Your task to perform on an android device: snooze an email in the gmail app Image 0: 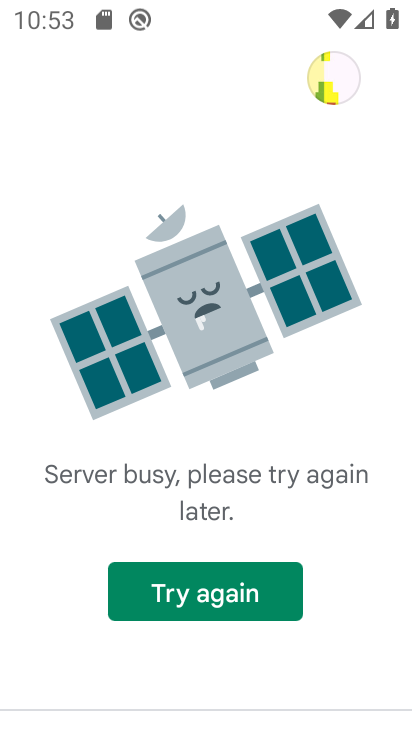
Step 0: press home button
Your task to perform on an android device: snooze an email in the gmail app Image 1: 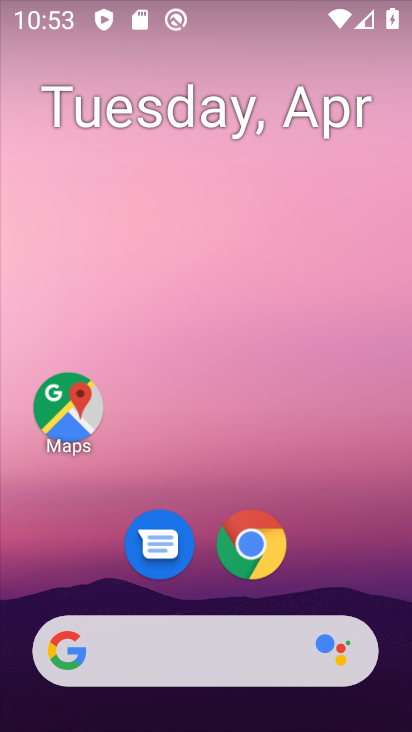
Step 1: press home button
Your task to perform on an android device: snooze an email in the gmail app Image 2: 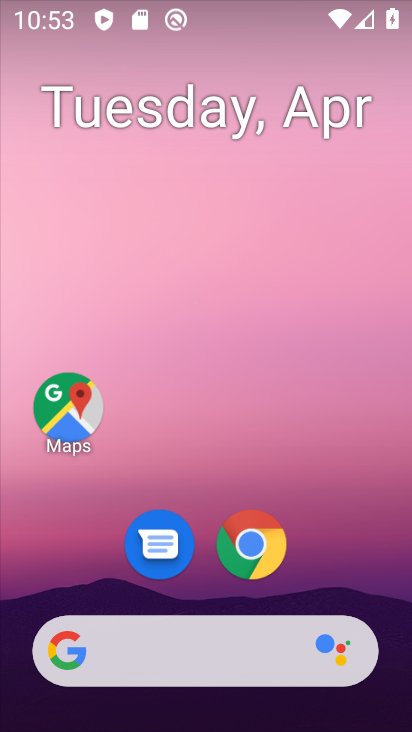
Step 2: drag from (197, 579) to (202, 16)
Your task to perform on an android device: snooze an email in the gmail app Image 3: 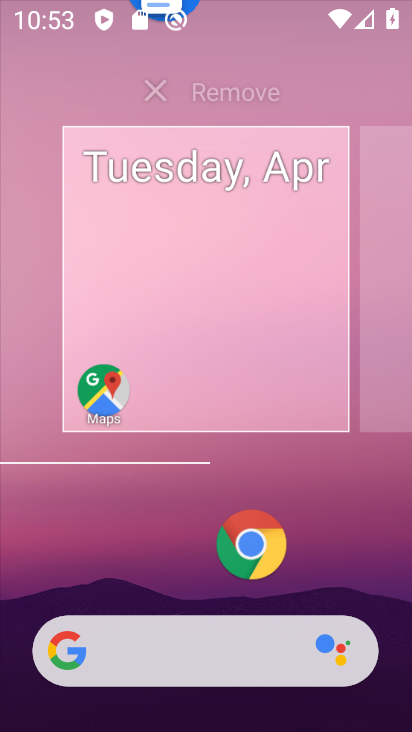
Step 3: click (339, 529)
Your task to perform on an android device: snooze an email in the gmail app Image 4: 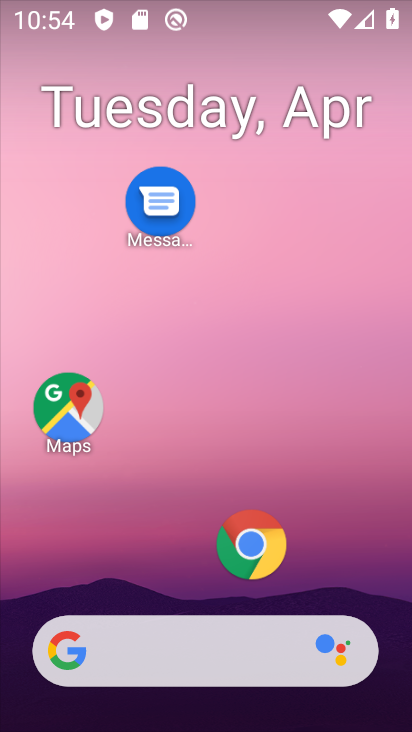
Step 4: click (353, 525)
Your task to perform on an android device: snooze an email in the gmail app Image 5: 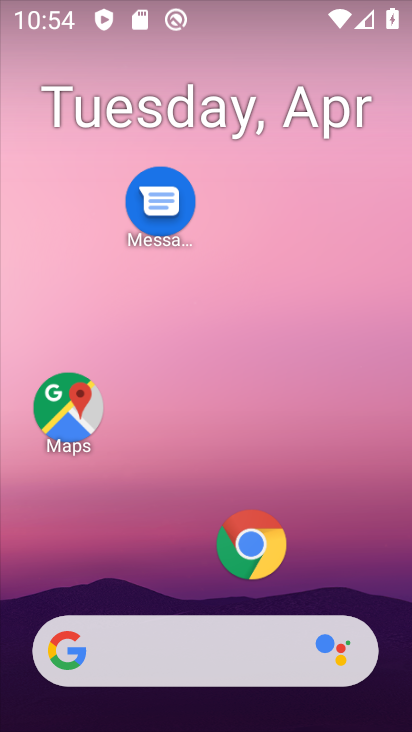
Step 5: drag from (162, 576) to (315, 52)
Your task to perform on an android device: snooze an email in the gmail app Image 6: 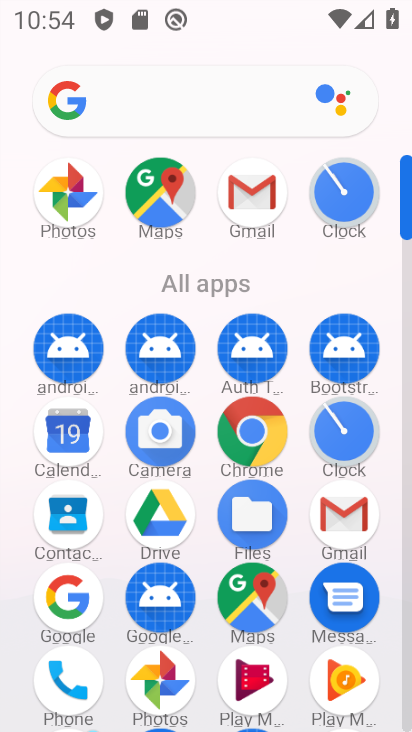
Step 6: drag from (161, 571) to (303, 5)
Your task to perform on an android device: snooze an email in the gmail app Image 7: 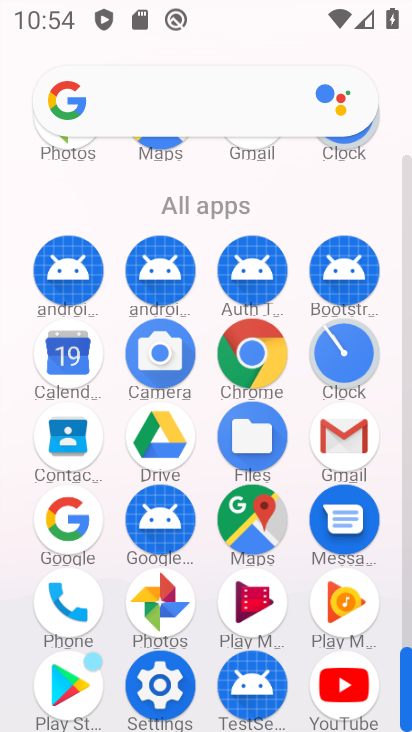
Step 7: click (353, 433)
Your task to perform on an android device: snooze an email in the gmail app Image 8: 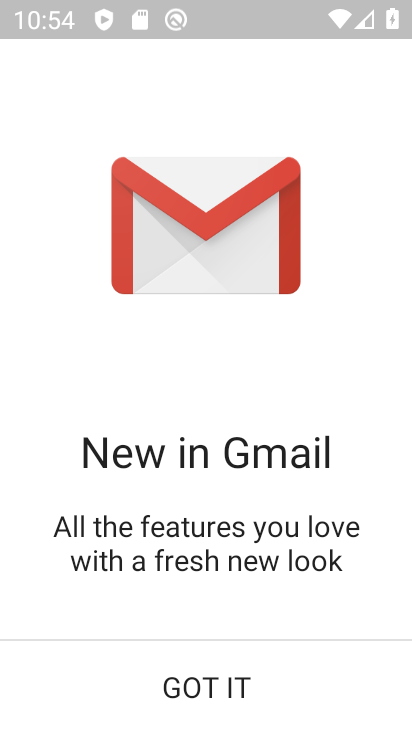
Step 8: click (215, 675)
Your task to perform on an android device: snooze an email in the gmail app Image 9: 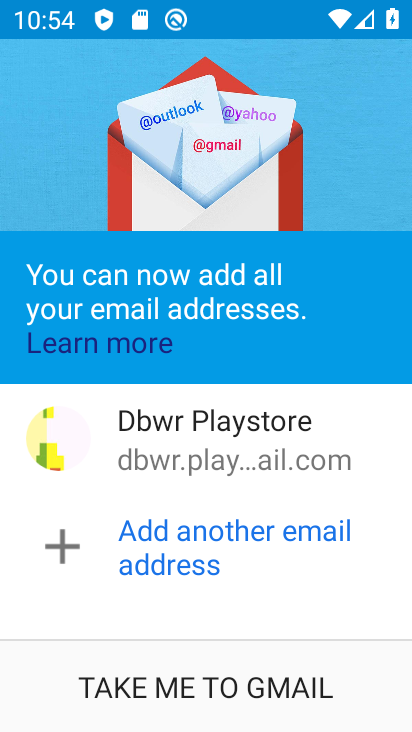
Step 9: click (227, 687)
Your task to perform on an android device: snooze an email in the gmail app Image 10: 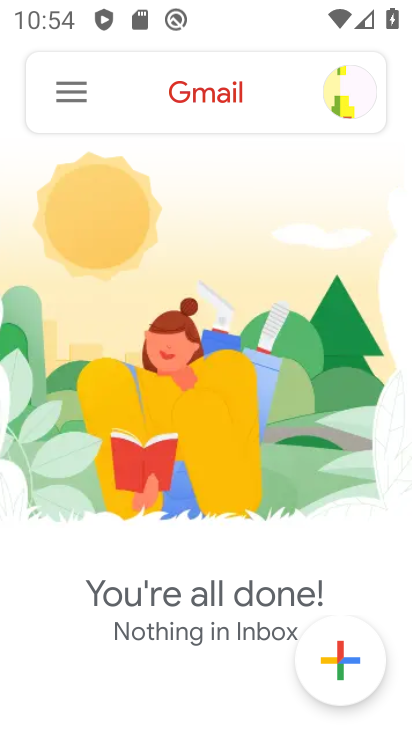
Step 10: click (79, 102)
Your task to perform on an android device: snooze an email in the gmail app Image 11: 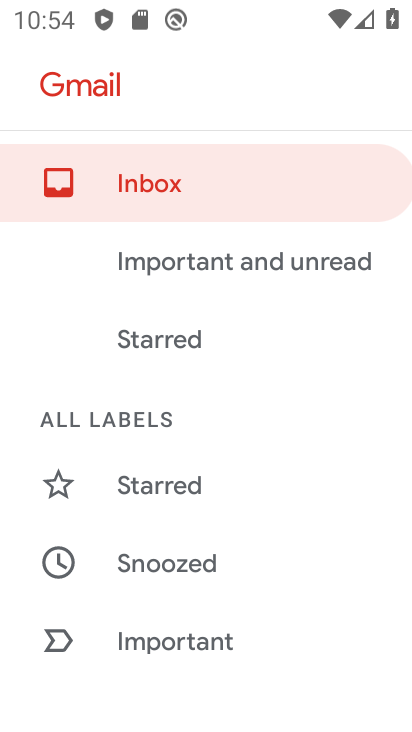
Step 11: drag from (168, 606) to (233, 73)
Your task to perform on an android device: snooze an email in the gmail app Image 12: 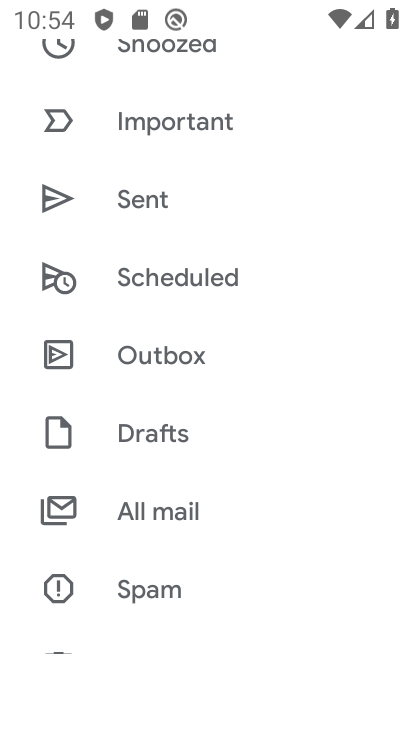
Step 12: click (175, 512)
Your task to perform on an android device: snooze an email in the gmail app Image 13: 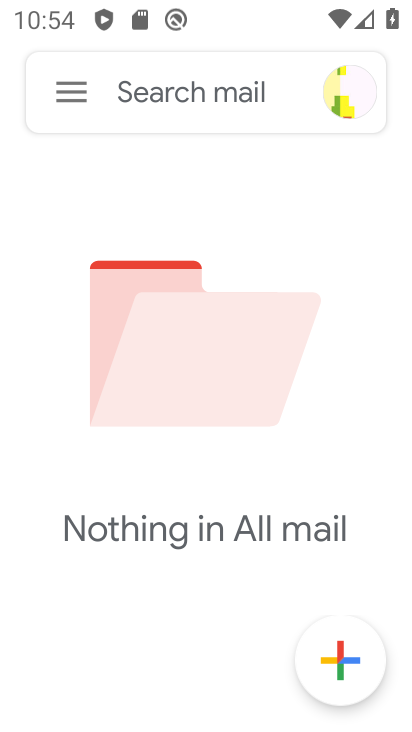
Step 13: task complete